Your task to perform on an android device: show emergency info Image 0: 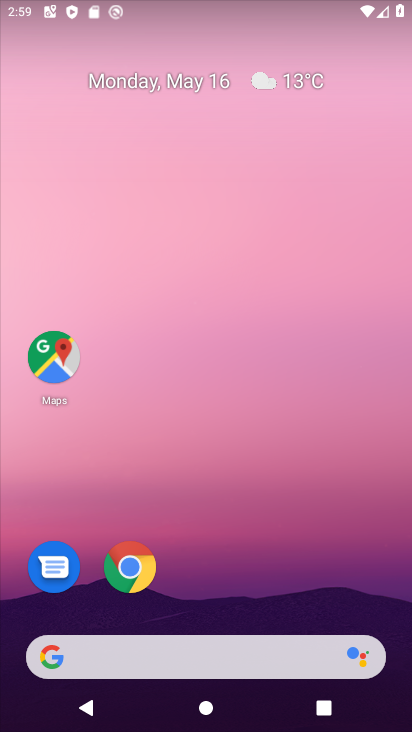
Step 0: drag from (298, 541) to (318, 53)
Your task to perform on an android device: show emergency info Image 1: 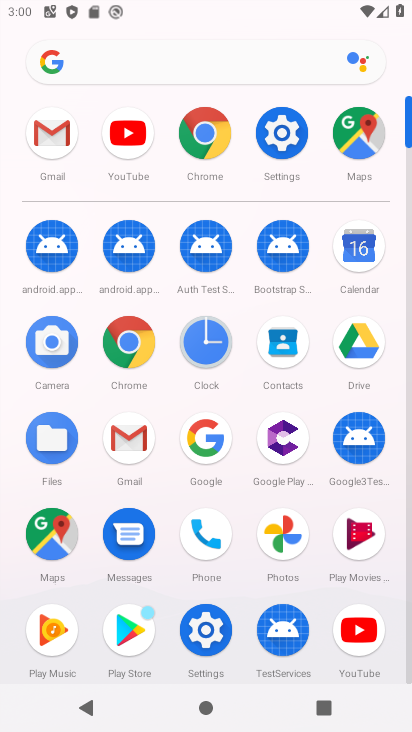
Step 1: click (286, 119)
Your task to perform on an android device: show emergency info Image 2: 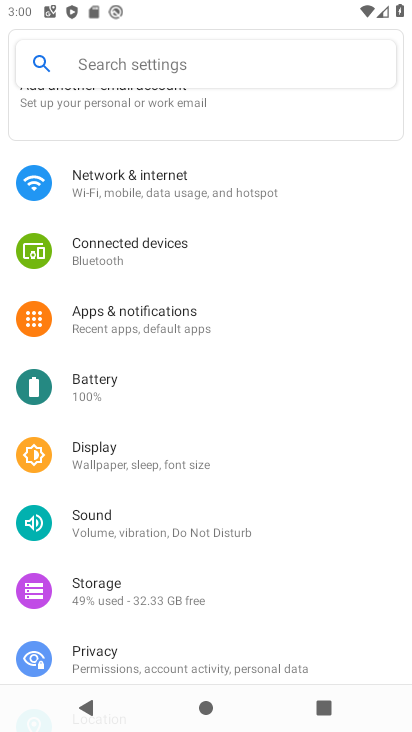
Step 2: drag from (206, 608) to (264, 127)
Your task to perform on an android device: show emergency info Image 3: 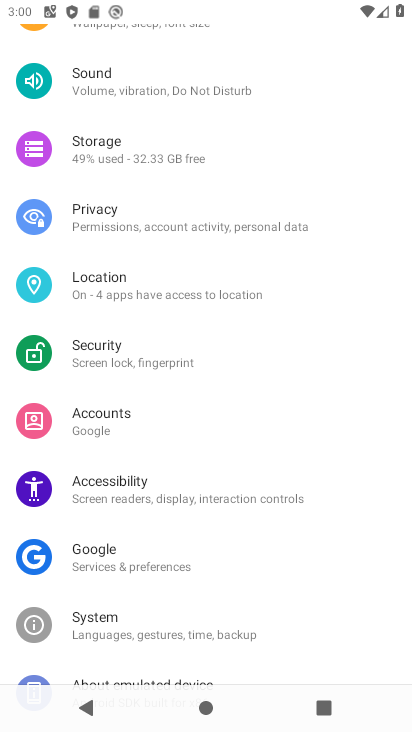
Step 3: drag from (273, 609) to (290, 19)
Your task to perform on an android device: show emergency info Image 4: 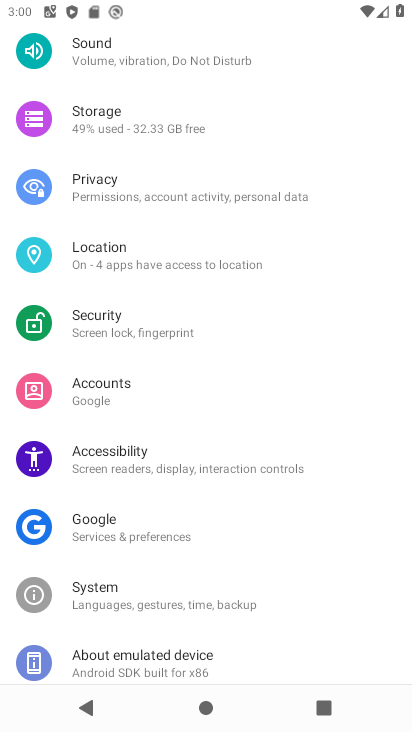
Step 4: click (177, 649)
Your task to perform on an android device: show emergency info Image 5: 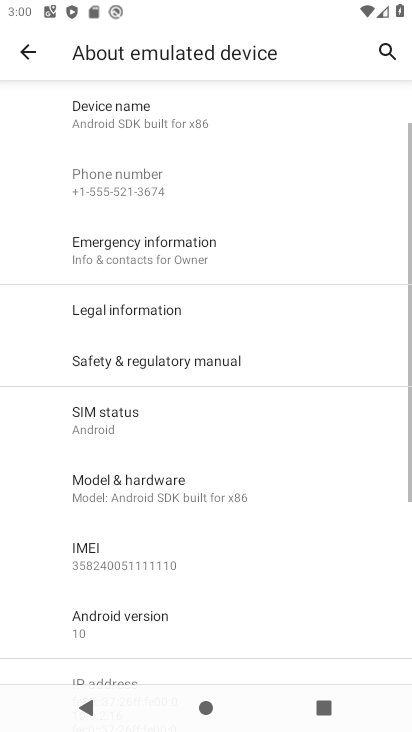
Step 5: click (241, 266)
Your task to perform on an android device: show emergency info Image 6: 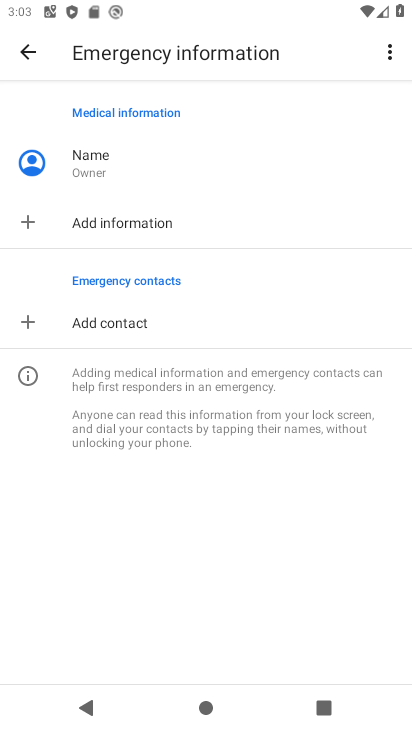
Step 6: task complete